Your task to perform on an android device: Open calendar and show me the third week of next month Image 0: 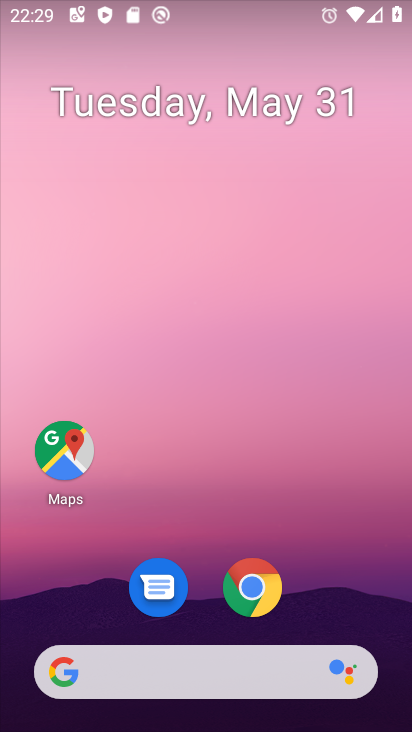
Step 0: drag from (368, 609) to (355, 166)
Your task to perform on an android device: Open calendar and show me the third week of next month Image 1: 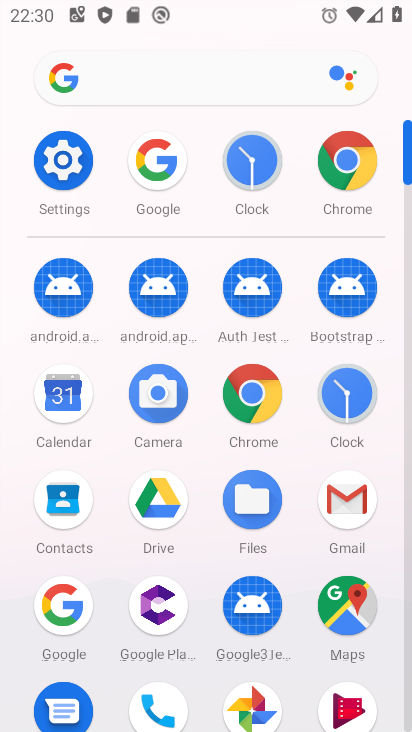
Step 1: click (69, 423)
Your task to perform on an android device: Open calendar and show me the third week of next month Image 2: 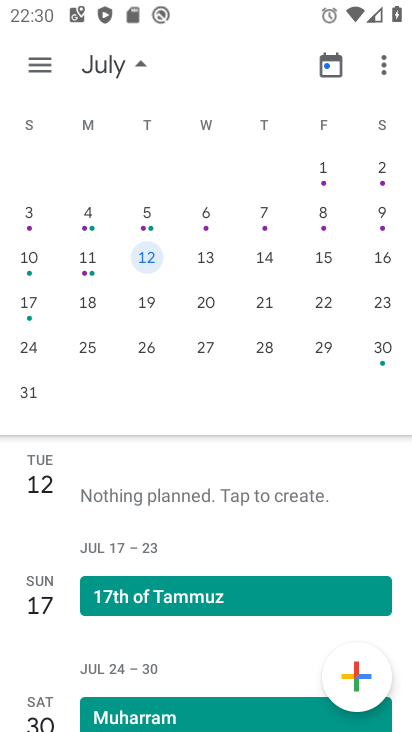
Step 2: task complete